Your task to perform on an android device: turn off wifi Image 0: 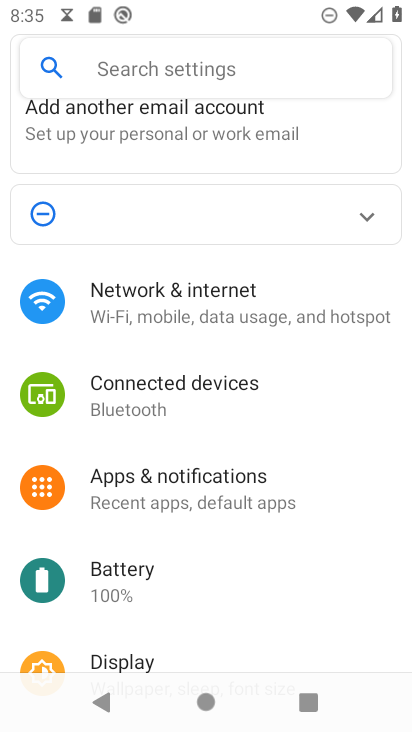
Step 0: click (207, 295)
Your task to perform on an android device: turn off wifi Image 1: 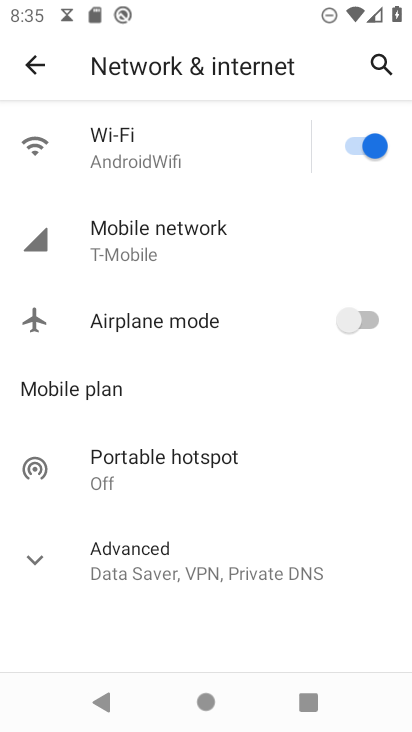
Step 1: click (361, 144)
Your task to perform on an android device: turn off wifi Image 2: 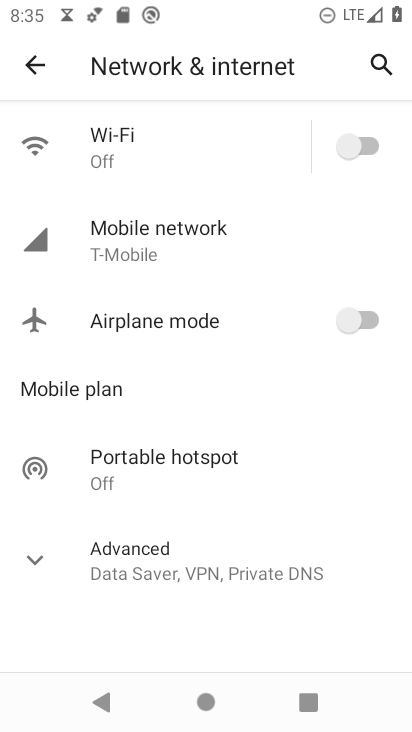
Step 2: task complete